Your task to perform on an android device: Open Youtube and go to "Your channel" Image 0: 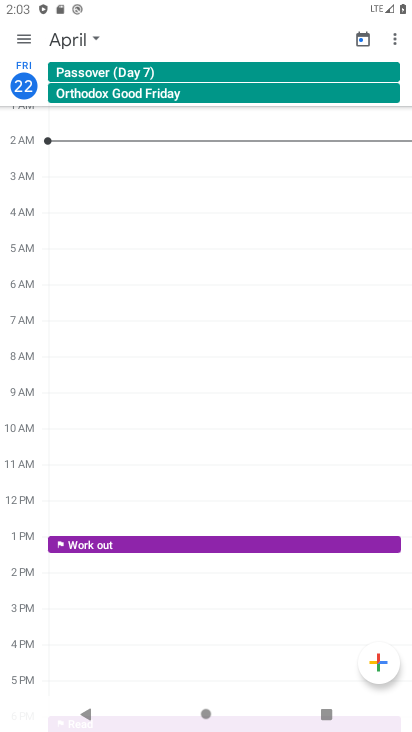
Step 0: drag from (263, 695) to (408, 476)
Your task to perform on an android device: Open Youtube and go to "Your channel" Image 1: 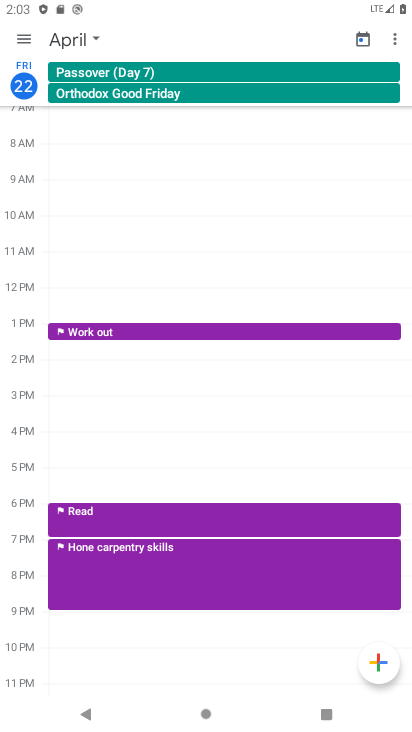
Step 1: press home button
Your task to perform on an android device: Open Youtube and go to "Your channel" Image 2: 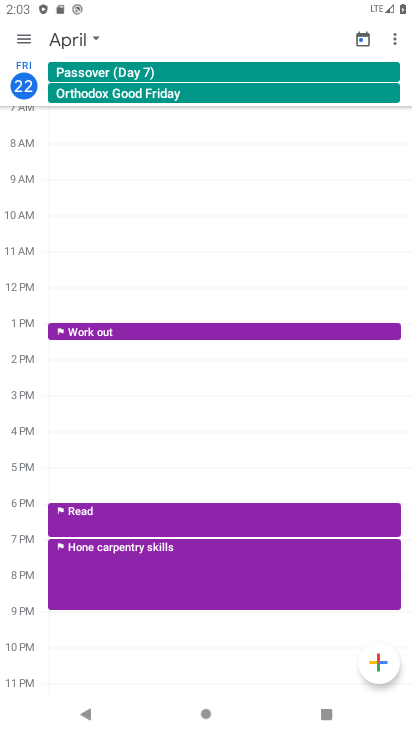
Step 2: drag from (408, 476) to (410, 289)
Your task to perform on an android device: Open Youtube and go to "Your channel" Image 3: 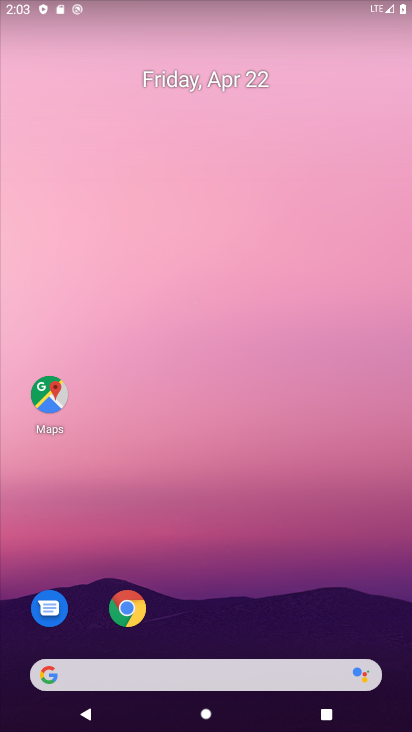
Step 3: drag from (286, 695) to (240, 139)
Your task to perform on an android device: Open Youtube and go to "Your channel" Image 4: 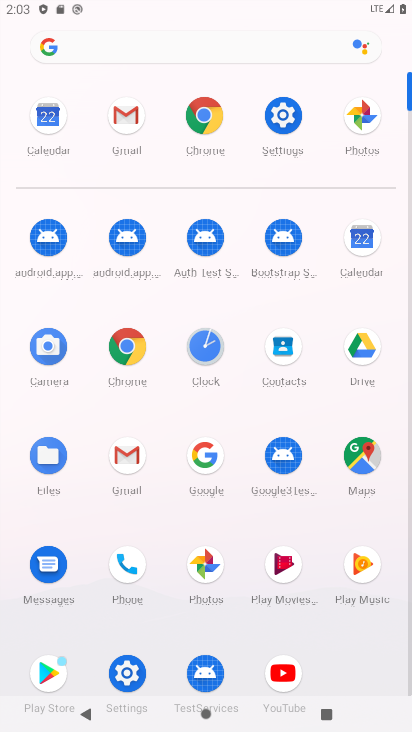
Step 4: click (278, 661)
Your task to perform on an android device: Open Youtube and go to "Your channel" Image 5: 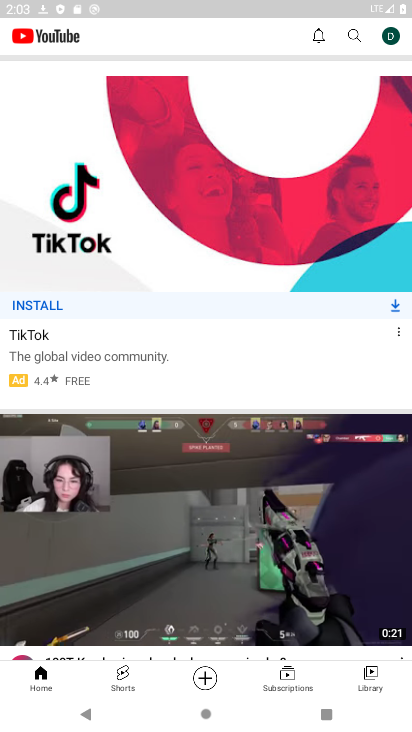
Step 5: click (348, 36)
Your task to perform on an android device: Open Youtube and go to "Your channel" Image 6: 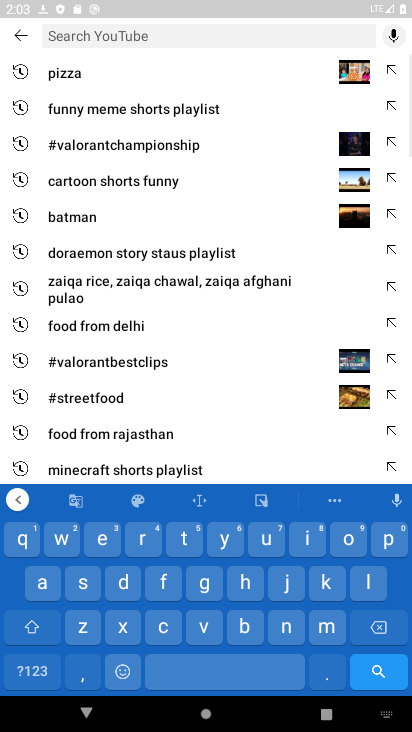
Step 6: click (26, 37)
Your task to perform on an android device: Open Youtube and go to "Your channel" Image 7: 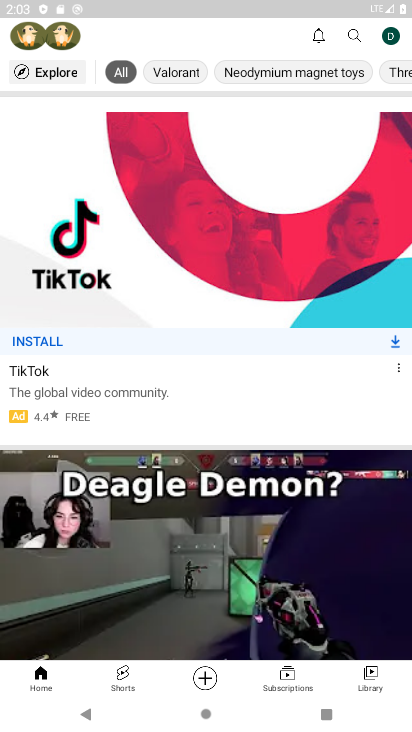
Step 7: click (388, 35)
Your task to perform on an android device: Open Youtube and go to "Your channel" Image 8: 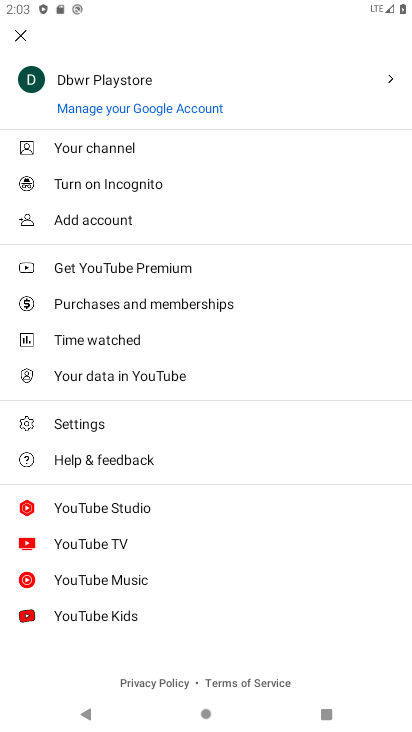
Step 8: click (99, 150)
Your task to perform on an android device: Open Youtube and go to "Your channel" Image 9: 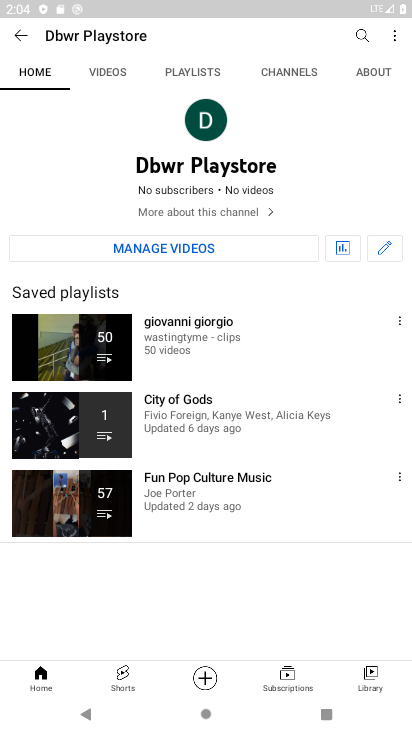
Step 9: task complete